Your task to perform on an android device: Clear all items from cart on costco.com. Search for razer kraken on costco.com, select the first entry, add it to the cart, then select checkout. Image 0: 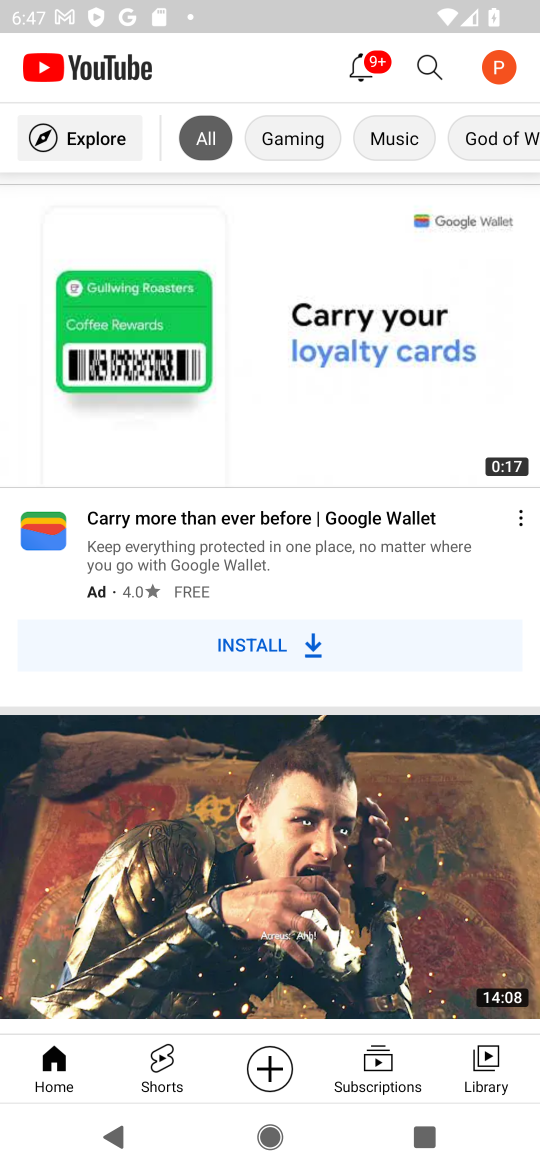
Step 0: press home button
Your task to perform on an android device: Clear all items from cart on costco.com. Search for razer kraken on costco.com, select the first entry, add it to the cart, then select checkout. Image 1: 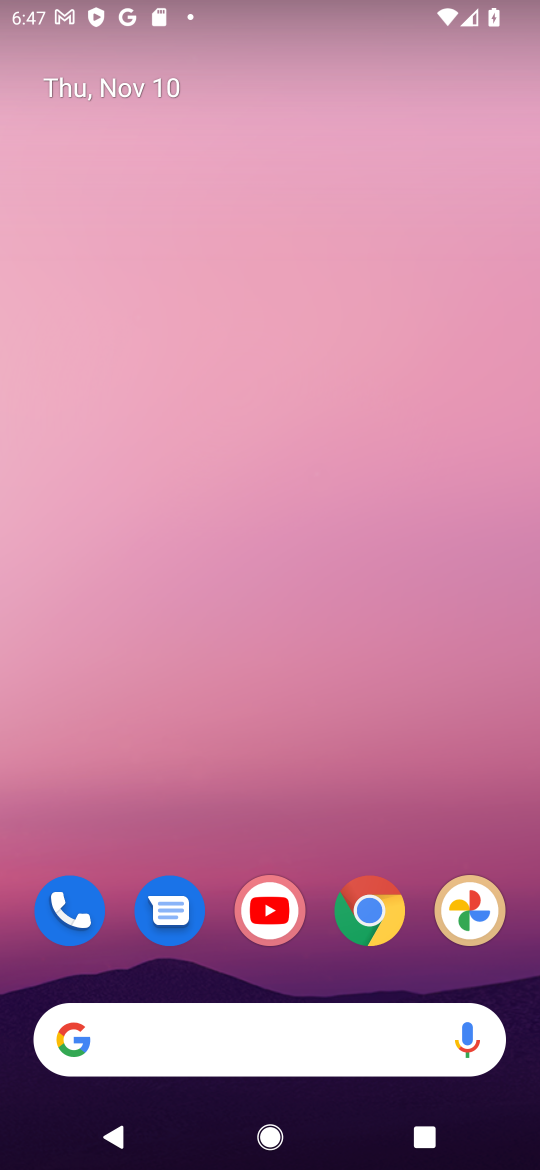
Step 1: click (371, 907)
Your task to perform on an android device: Clear all items from cart on costco.com. Search for razer kraken on costco.com, select the first entry, add it to the cart, then select checkout. Image 2: 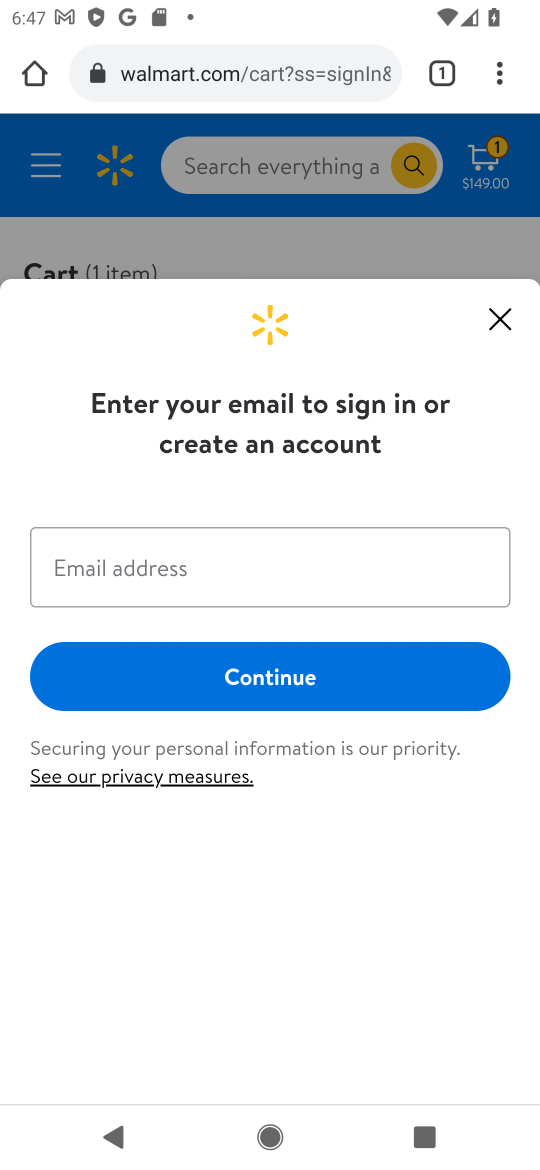
Step 2: click (192, 72)
Your task to perform on an android device: Clear all items from cart on costco.com. Search for razer kraken on costco.com, select the first entry, add it to the cart, then select checkout. Image 3: 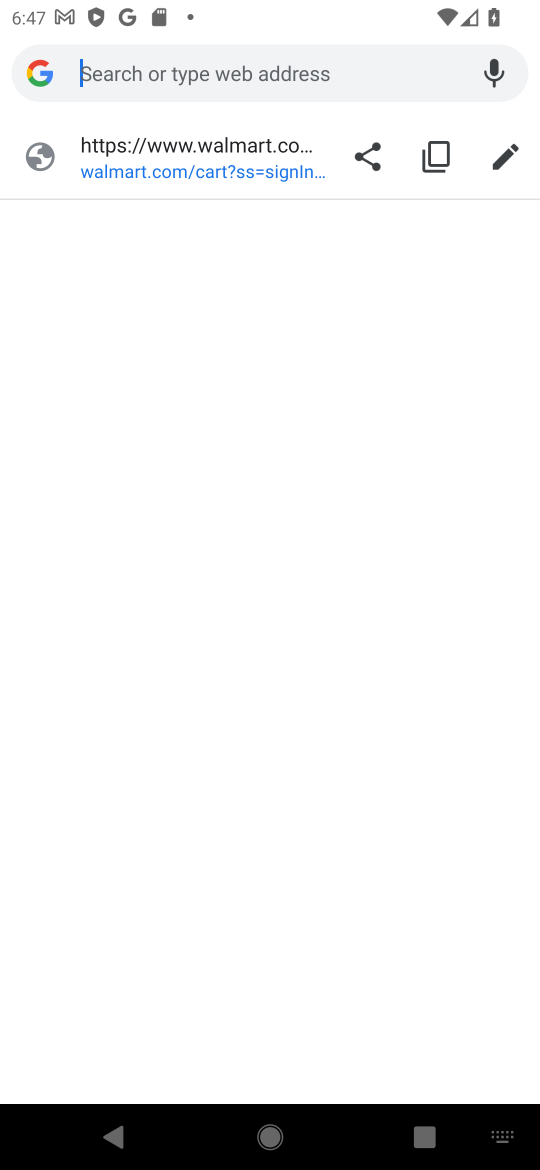
Step 3: type "costco.com"
Your task to perform on an android device: Clear all items from cart on costco.com. Search for razer kraken on costco.com, select the first entry, add it to the cart, then select checkout. Image 4: 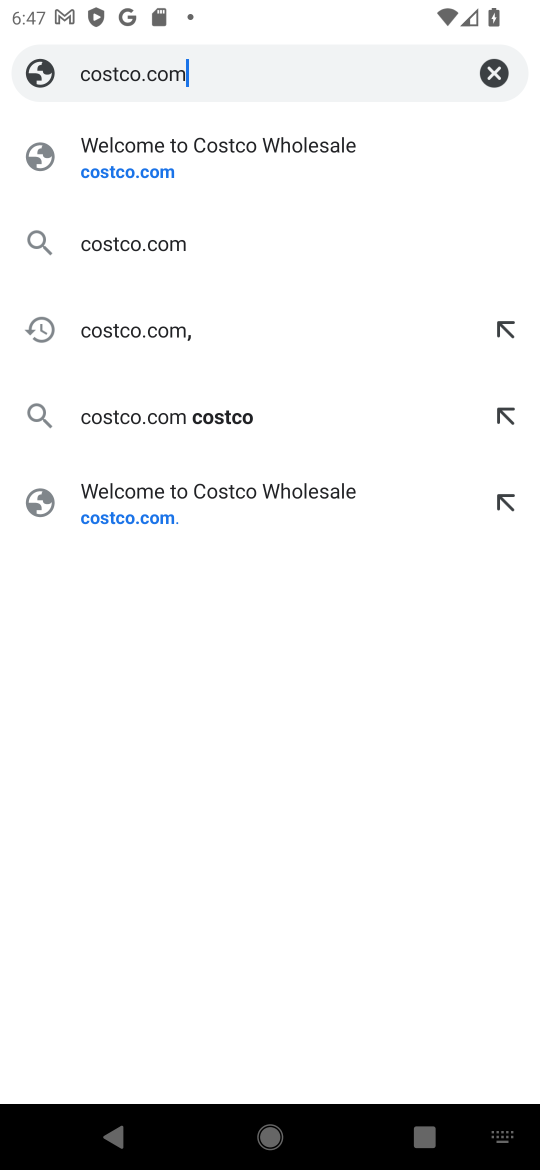
Step 4: click (152, 251)
Your task to perform on an android device: Clear all items from cart on costco.com. Search for razer kraken on costco.com, select the first entry, add it to the cart, then select checkout. Image 5: 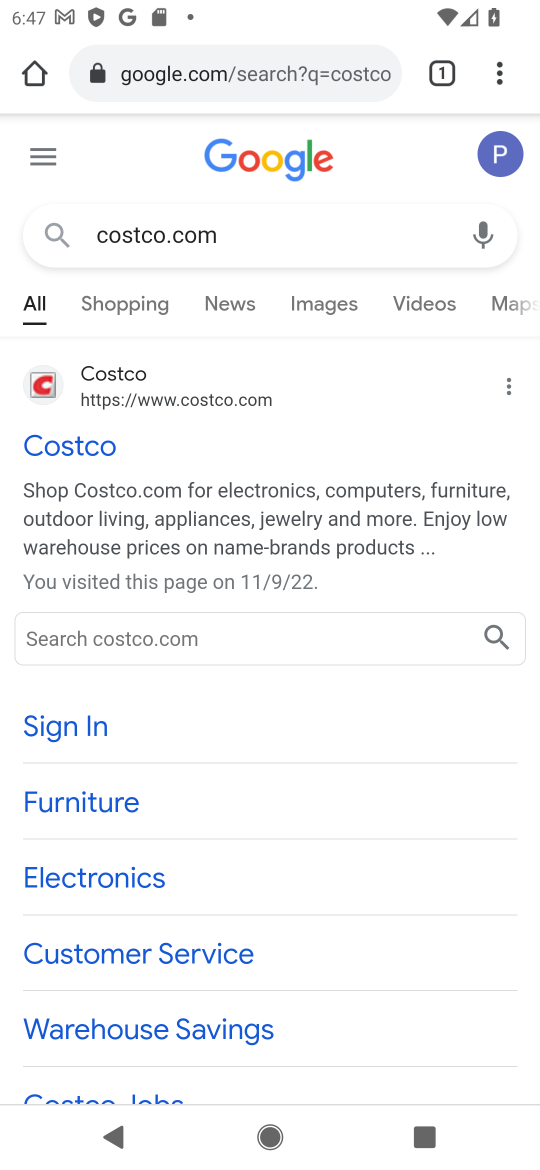
Step 5: click (149, 436)
Your task to perform on an android device: Clear all items from cart on costco.com. Search for razer kraken on costco.com, select the first entry, add it to the cart, then select checkout. Image 6: 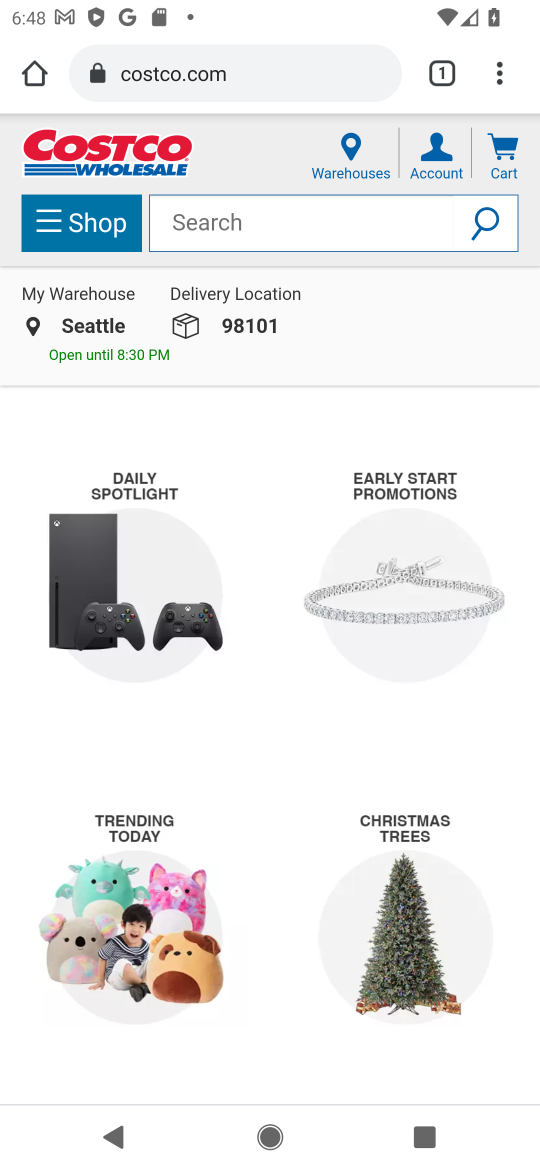
Step 6: click (507, 147)
Your task to perform on an android device: Clear all items from cart on costco.com. Search for razer kraken on costco.com, select the first entry, add it to the cart, then select checkout. Image 7: 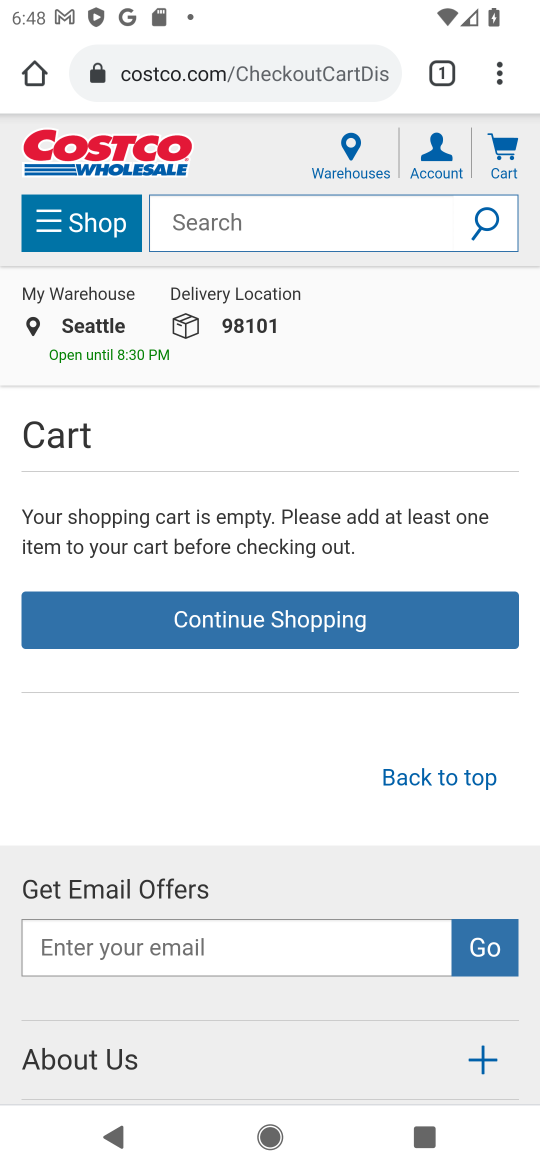
Step 7: click (383, 218)
Your task to perform on an android device: Clear all items from cart on costco.com. Search for razer kraken on costco.com, select the first entry, add it to the cart, then select checkout. Image 8: 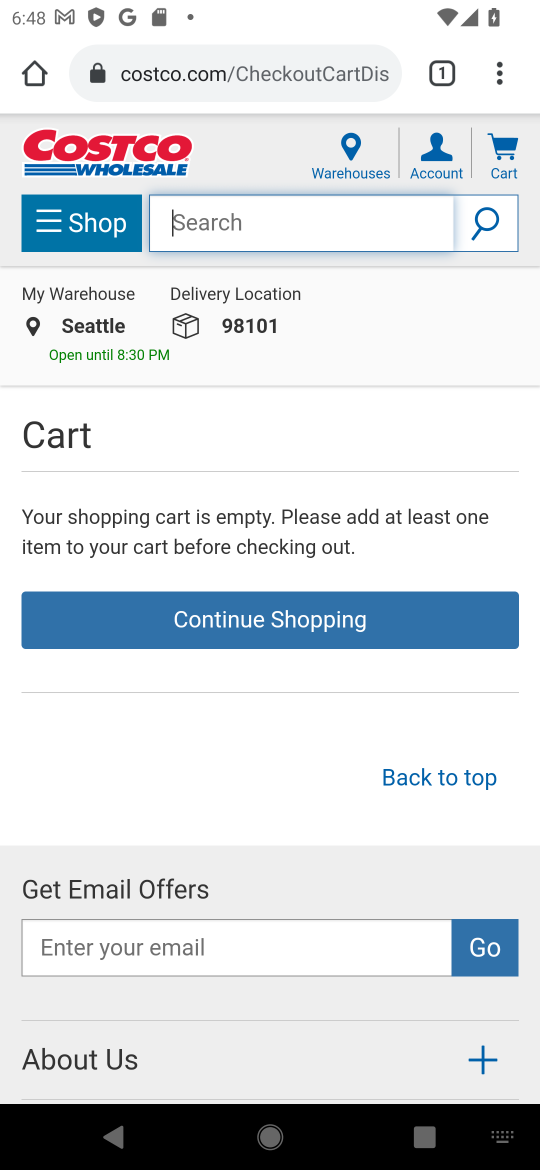
Step 8: type "razer kraken"
Your task to perform on an android device: Clear all items from cart on costco.com. Search for razer kraken on costco.com, select the first entry, add it to the cart, then select checkout. Image 9: 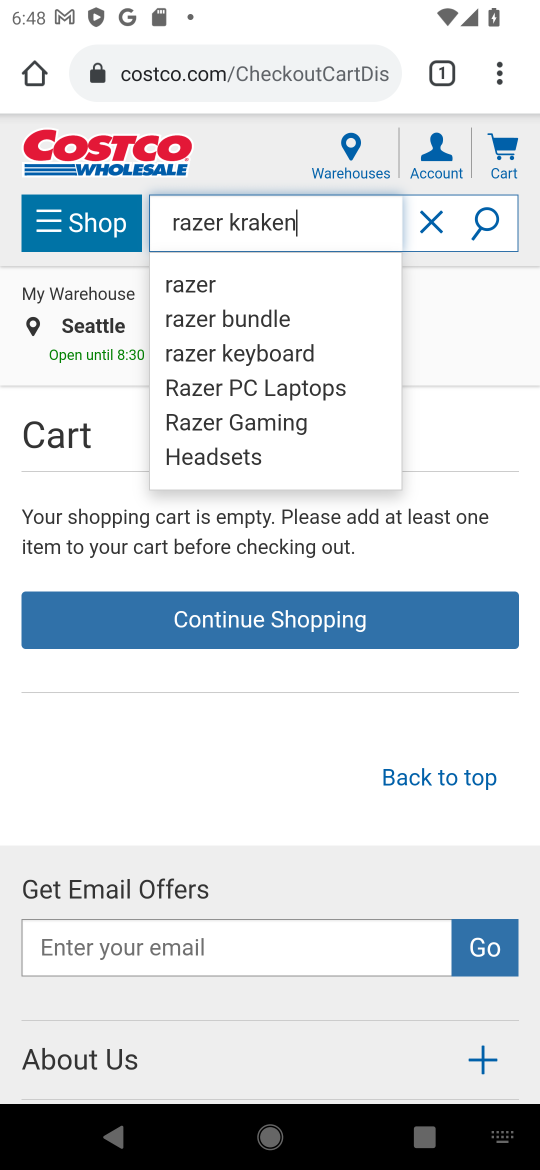
Step 9: click (487, 221)
Your task to perform on an android device: Clear all items from cart on costco.com. Search for razer kraken on costco.com, select the first entry, add it to the cart, then select checkout. Image 10: 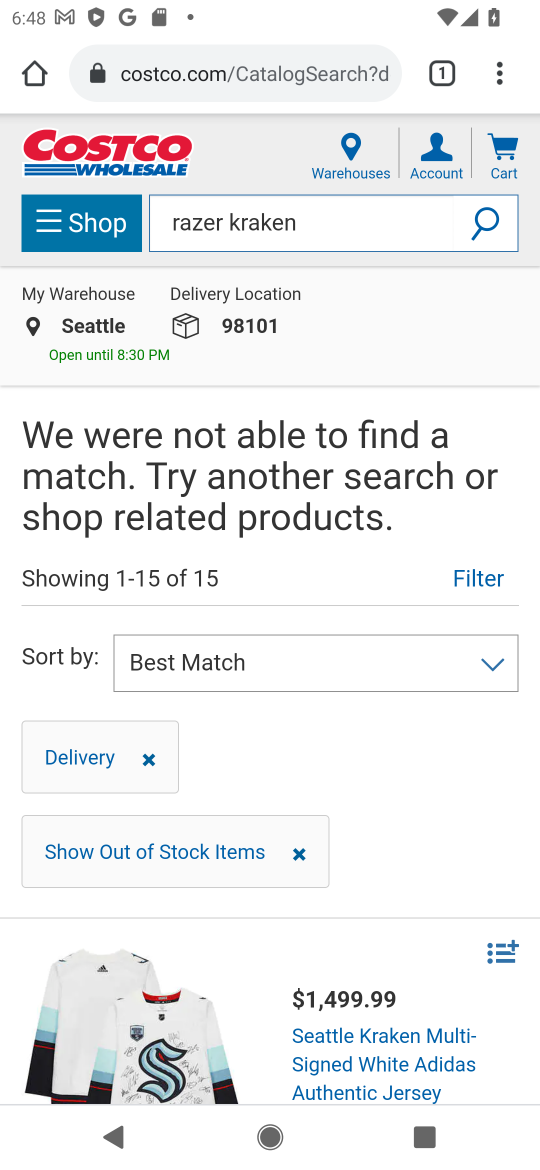
Step 10: task complete